Your task to perform on an android device: Search for jbl flip 4 on ebay.com, select the first entry, and add it to the cart. Image 0: 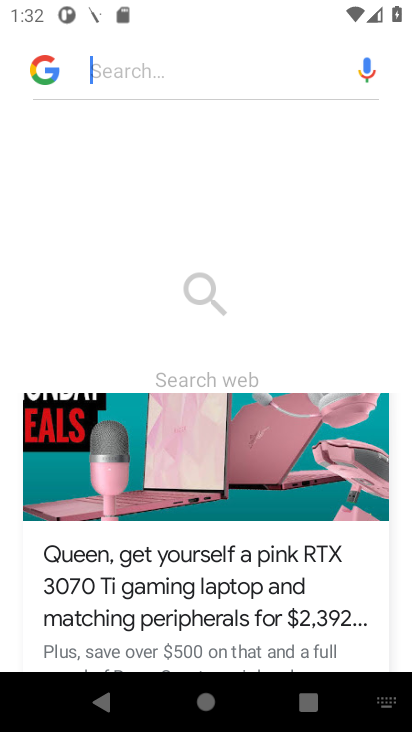
Step 0: task complete